Your task to perform on an android device: turn off location history Image 0: 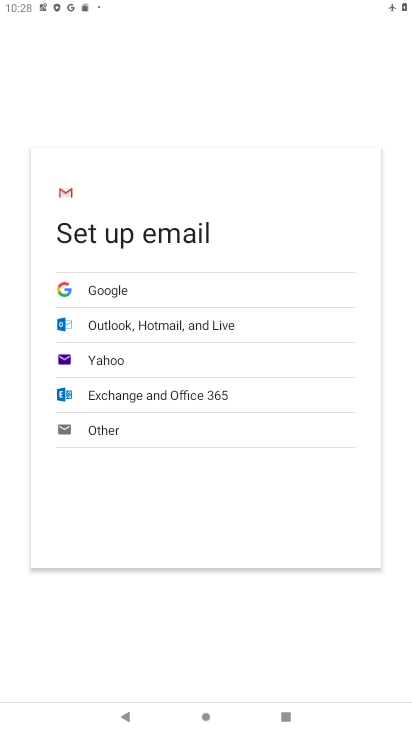
Step 0: press home button
Your task to perform on an android device: turn off location history Image 1: 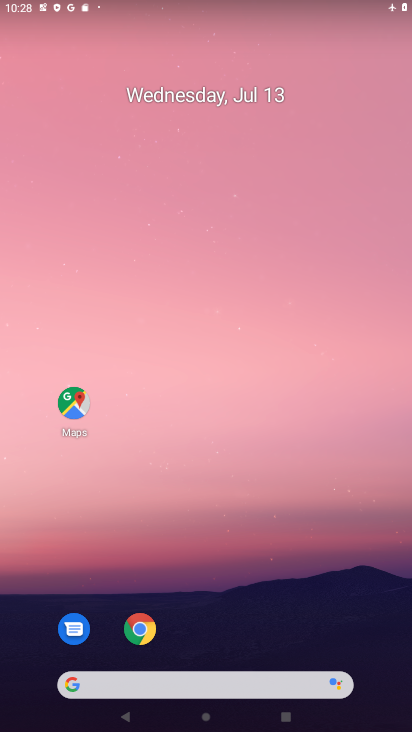
Step 1: drag from (292, 620) to (313, 22)
Your task to perform on an android device: turn off location history Image 2: 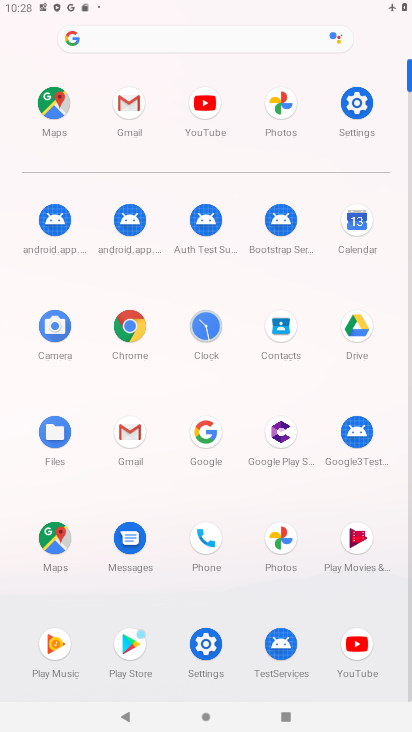
Step 2: click (352, 102)
Your task to perform on an android device: turn off location history Image 3: 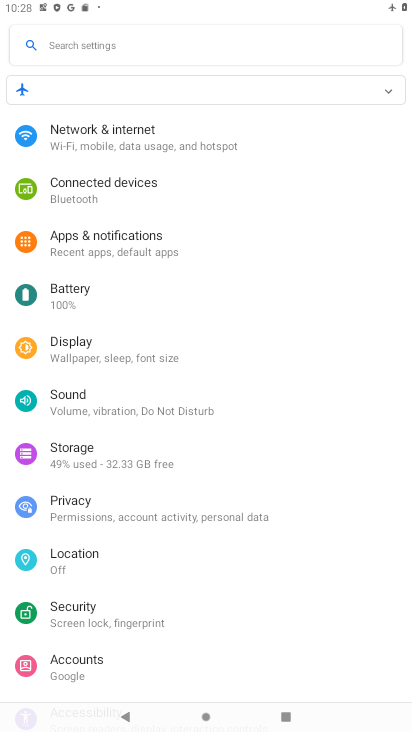
Step 3: click (84, 546)
Your task to perform on an android device: turn off location history Image 4: 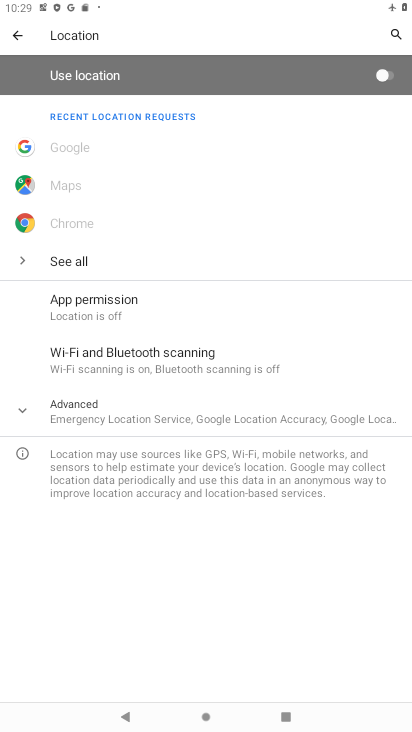
Step 4: task complete